Your task to perform on an android device: Toggle the flashlight Image 0: 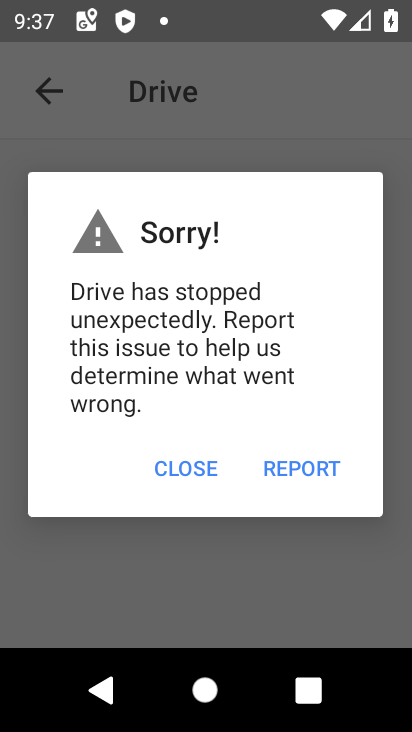
Step 0: press home button
Your task to perform on an android device: Toggle the flashlight Image 1: 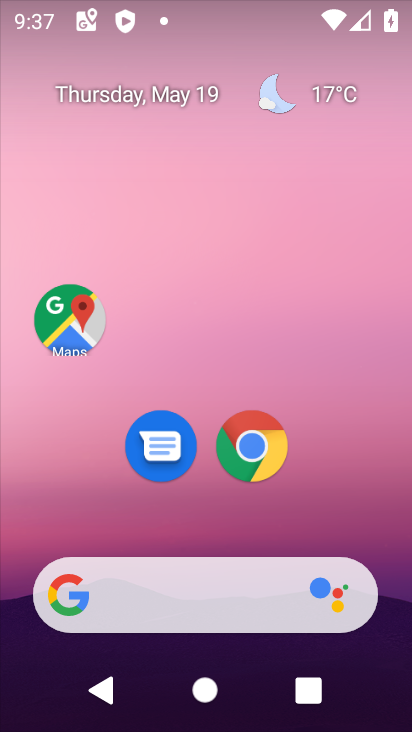
Step 1: drag from (247, 539) to (250, 55)
Your task to perform on an android device: Toggle the flashlight Image 2: 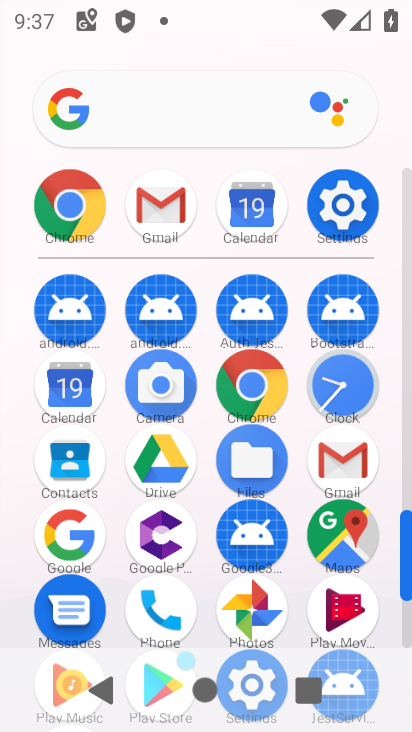
Step 2: click (350, 192)
Your task to perform on an android device: Toggle the flashlight Image 3: 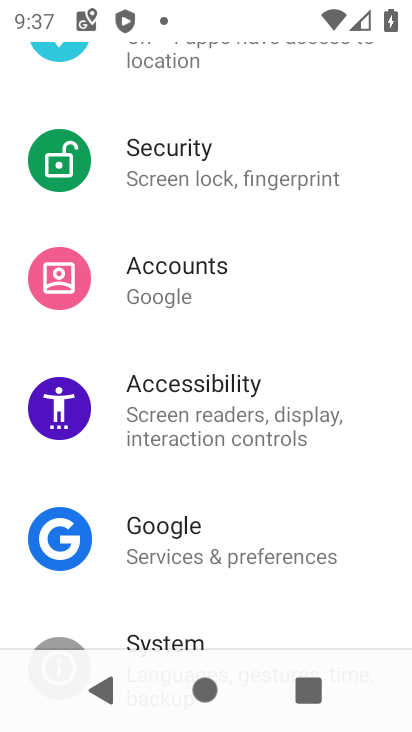
Step 3: drag from (210, 176) to (183, 639)
Your task to perform on an android device: Toggle the flashlight Image 4: 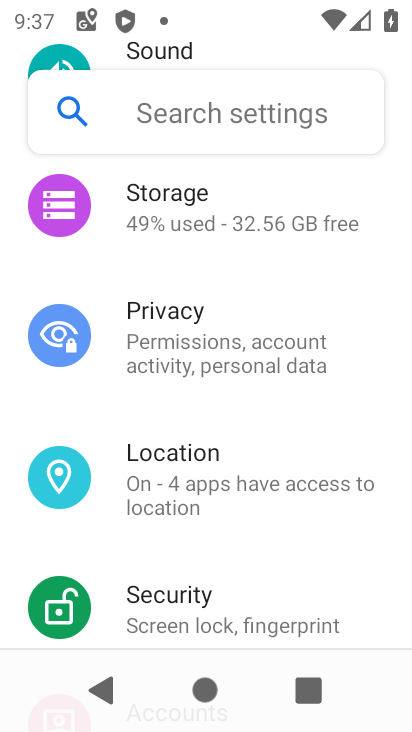
Step 4: drag from (197, 260) to (199, 650)
Your task to perform on an android device: Toggle the flashlight Image 5: 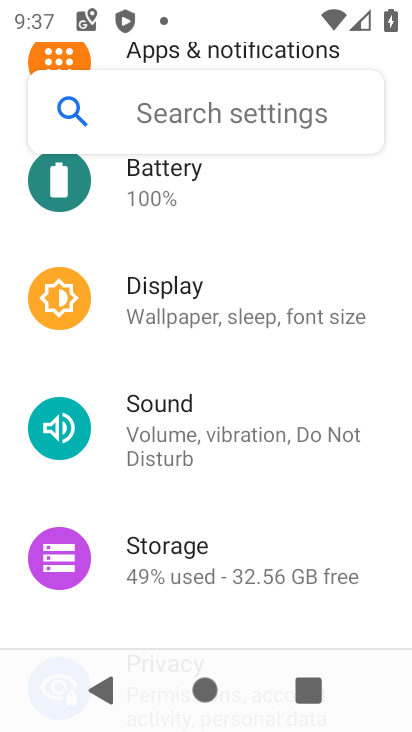
Step 5: click (221, 128)
Your task to perform on an android device: Toggle the flashlight Image 6: 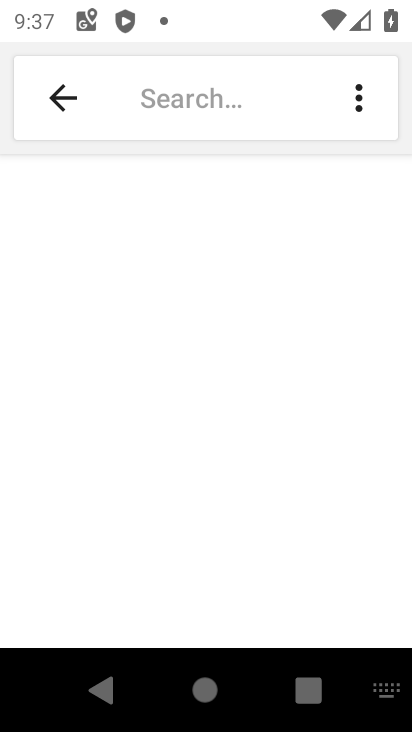
Step 6: type "flashlight"
Your task to perform on an android device: Toggle the flashlight Image 7: 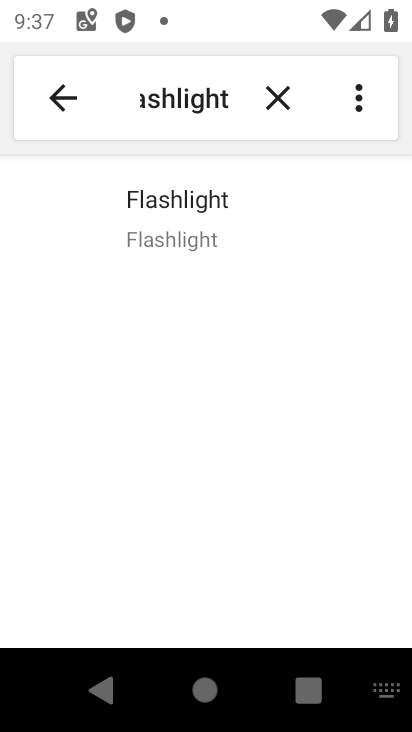
Step 7: click (185, 216)
Your task to perform on an android device: Toggle the flashlight Image 8: 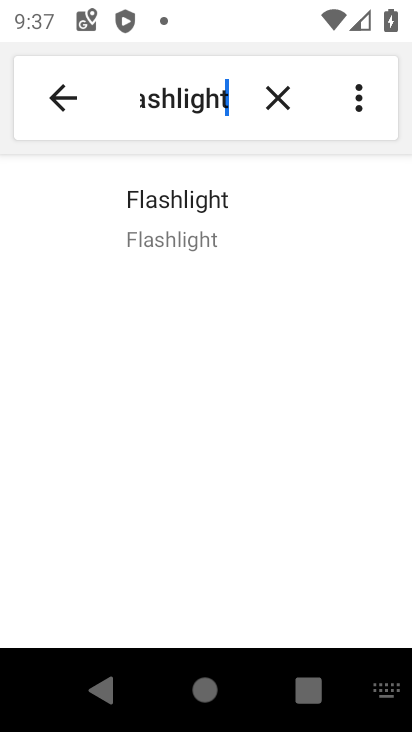
Step 8: click (197, 234)
Your task to perform on an android device: Toggle the flashlight Image 9: 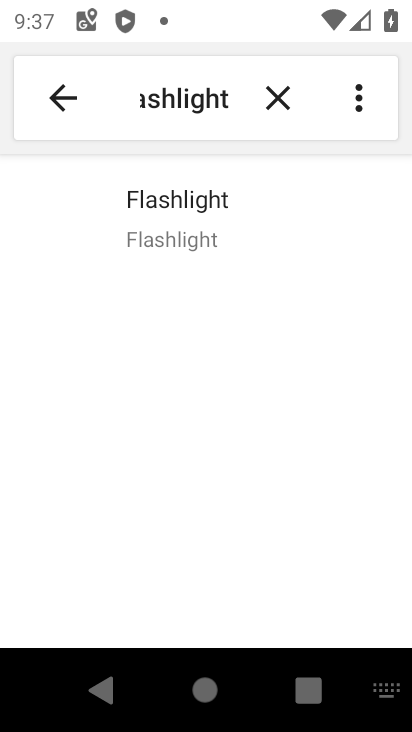
Step 9: task complete